Your task to perform on an android device: Open Amazon Image 0: 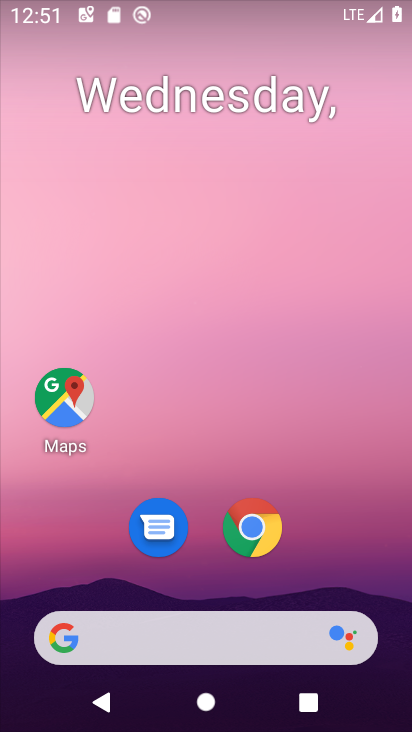
Step 0: drag from (306, 619) to (294, 7)
Your task to perform on an android device: Open Amazon Image 1: 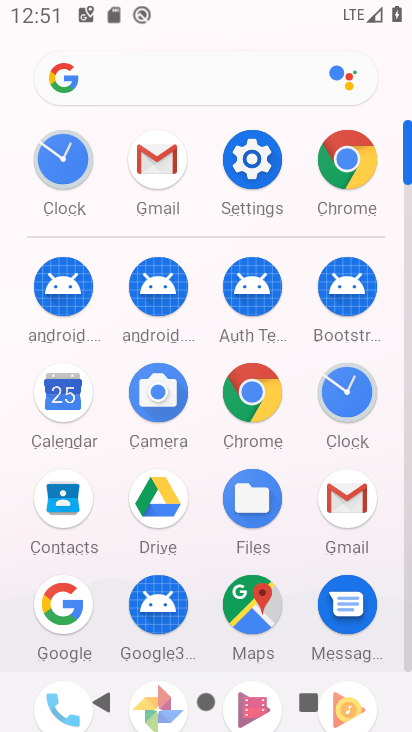
Step 1: click (244, 396)
Your task to perform on an android device: Open Amazon Image 2: 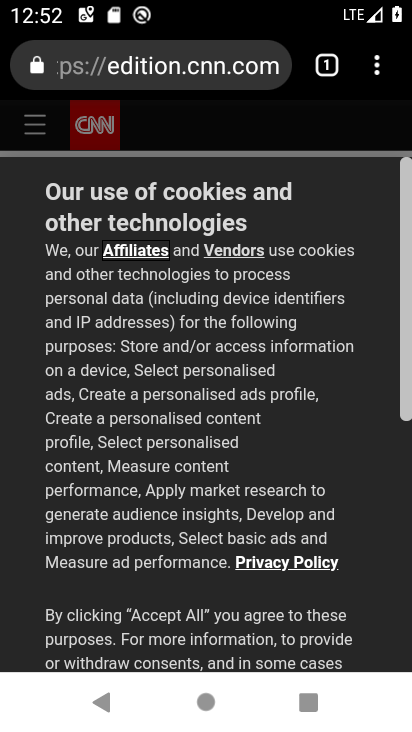
Step 2: click (173, 66)
Your task to perform on an android device: Open Amazon Image 3: 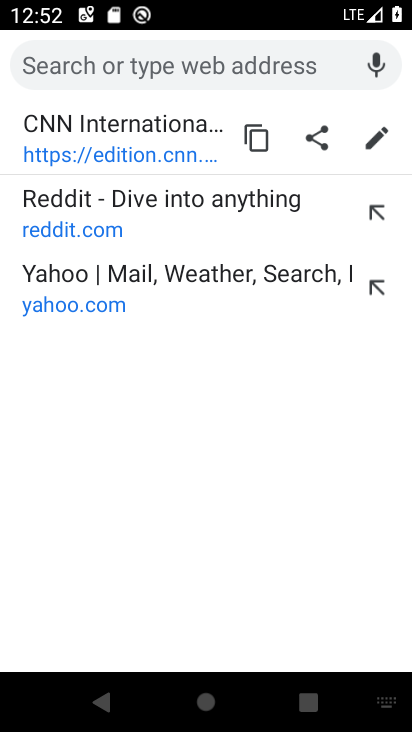
Step 3: type "amazon"
Your task to perform on an android device: Open Amazon Image 4: 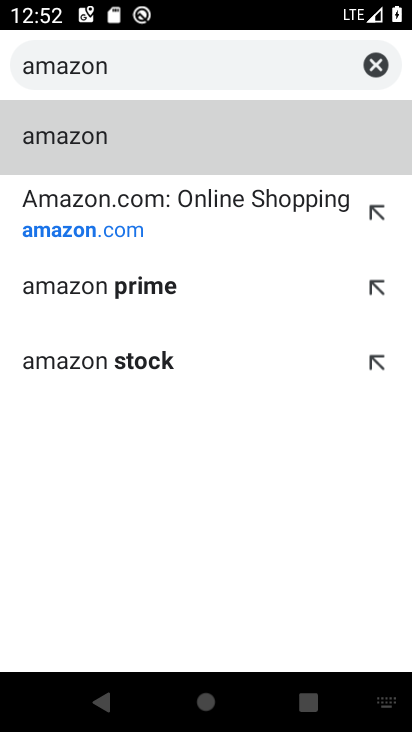
Step 4: click (132, 227)
Your task to perform on an android device: Open Amazon Image 5: 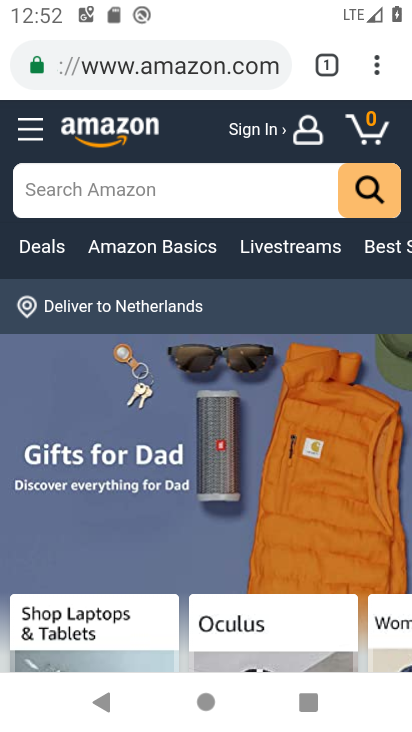
Step 5: task complete